Your task to perform on an android device: turn vacation reply on in the gmail app Image 0: 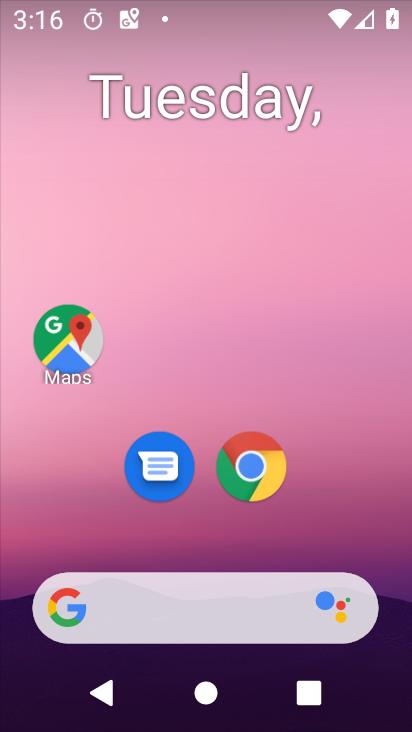
Step 0: drag from (373, 550) to (352, 149)
Your task to perform on an android device: turn vacation reply on in the gmail app Image 1: 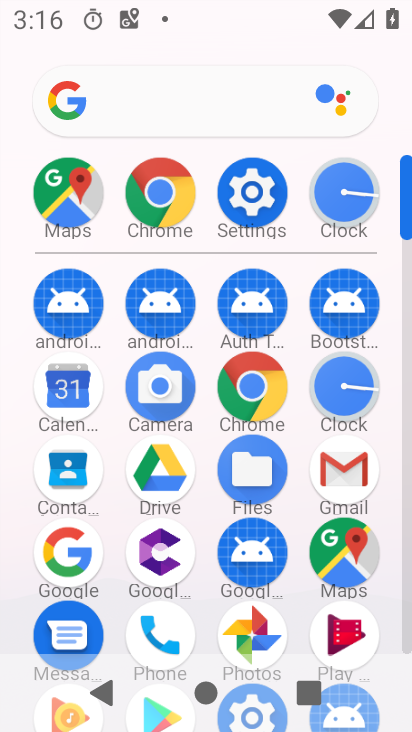
Step 1: click (354, 467)
Your task to perform on an android device: turn vacation reply on in the gmail app Image 2: 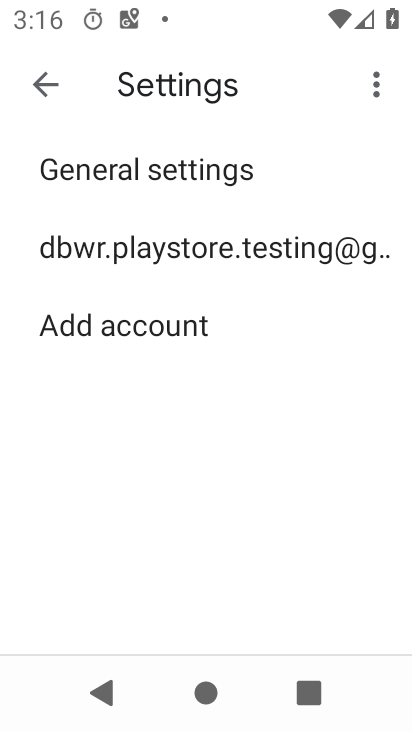
Step 2: click (160, 258)
Your task to perform on an android device: turn vacation reply on in the gmail app Image 3: 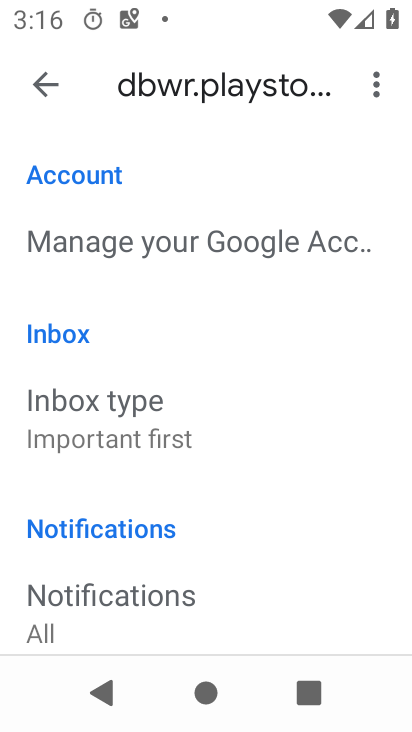
Step 3: drag from (309, 521) to (315, 412)
Your task to perform on an android device: turn vacation reply on in the gmail app Image 4: 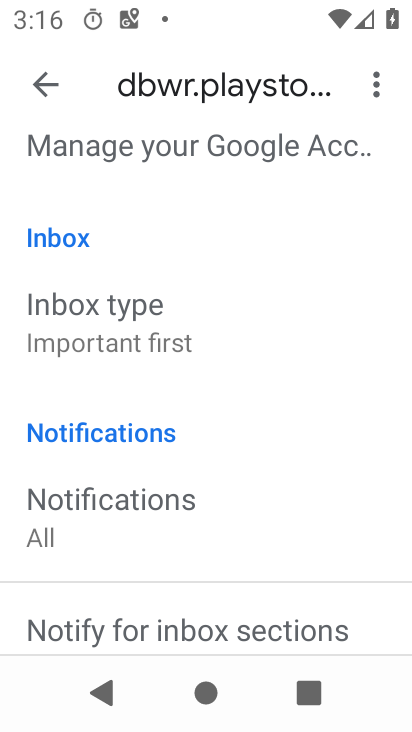
Step 4: drag from (301, 550) to (299, 354)
Your task to perform on an android device: turn vacation reply on in the gmail app Image 5: 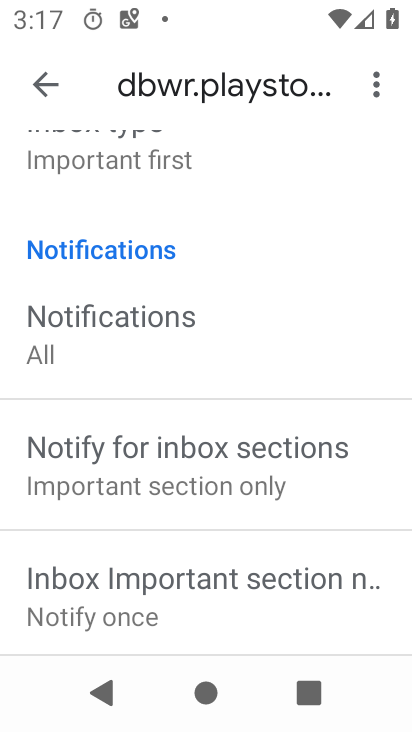
Step 5: drag from (322, 551) to (319, 395)
Your task to perform on an android device: turn vacation reply on in the gmail app Image 6: 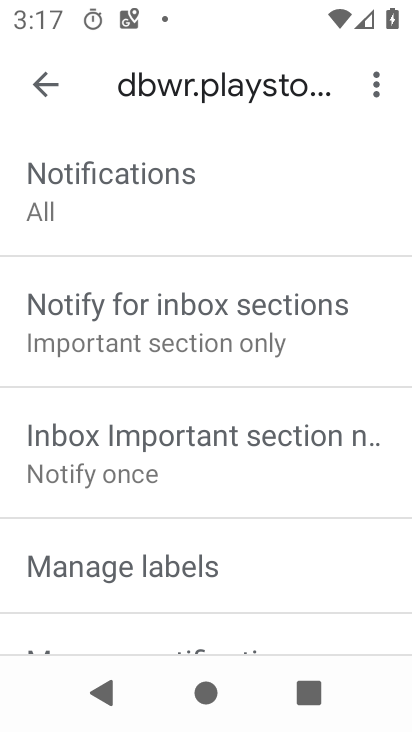
Step 6: drag from (323, 552) to (326, 359)
Your task to perform on an android device: turn vacation reply on in the gmail app Image 7: 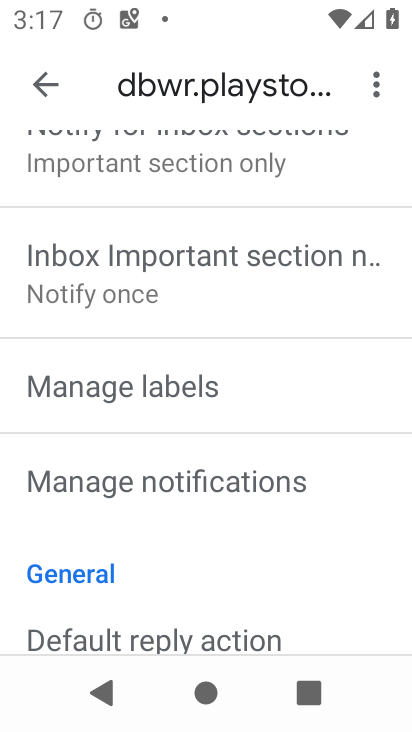
Step 7: drag from (321, 574) to (325, 376)
Your task to perform on an android device: turn vacation reply on in the gmail app Image 8: 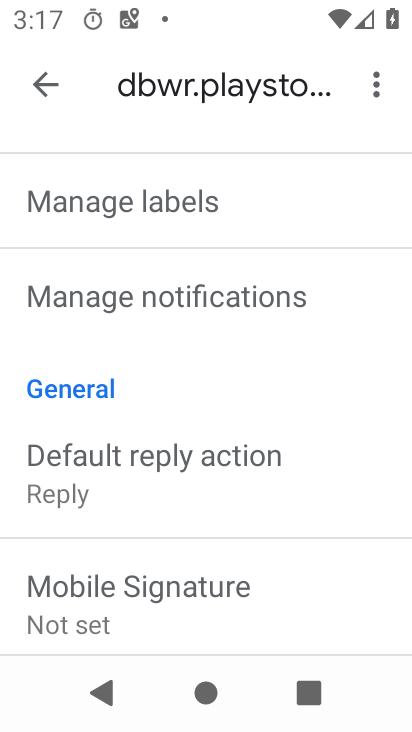
Step 8: drag from (316, 556) to (327, 385)
Your task to perform on an android device: turn vacation reply on in the gmail app Image 9: 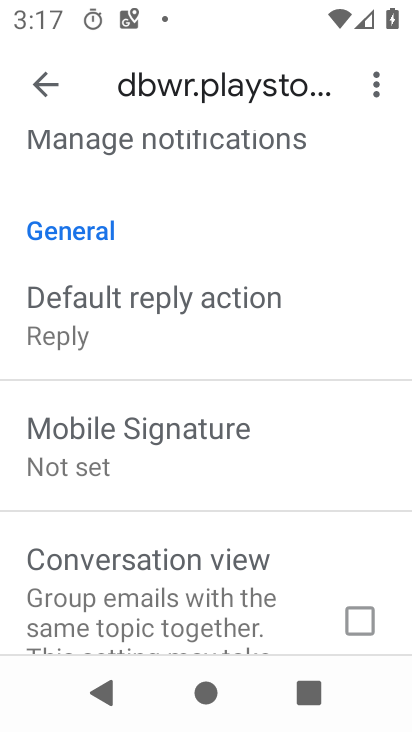
Step 9: drag from (304, 478) to (318, 347)
Your task to perform on an android device: turn vacation reply on in the gmail app Image 10: 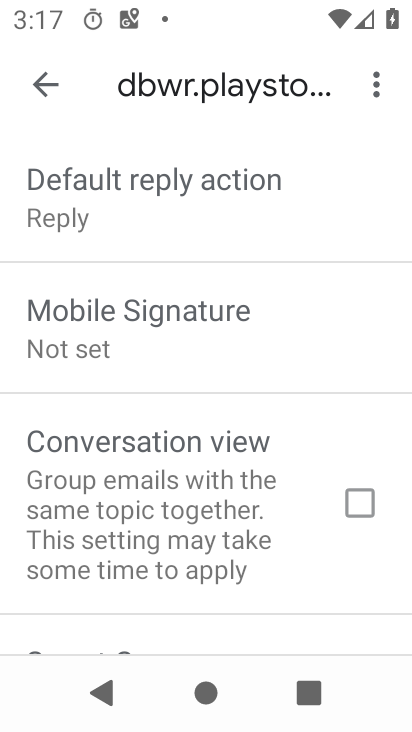
Step 10: drag from (311, 528) to (352, 341)
Your task to perform on an android device: turn vacation reply on in the gmail app Image 11: 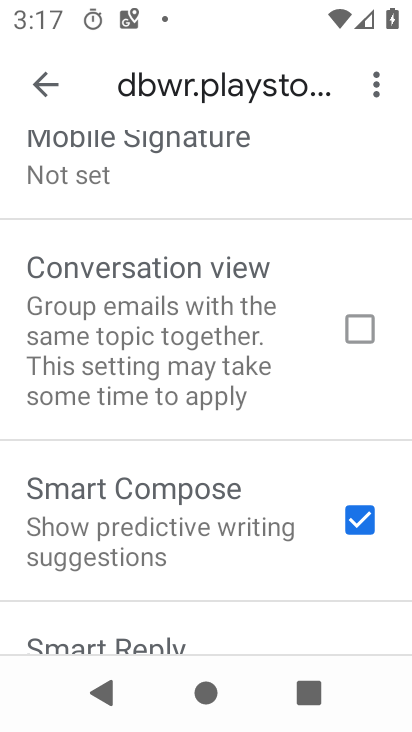
Step 11: drag from (312, 556) to (296, 407)
Your task to perform on an android device: turn vacation reply on in the gmail app Image 12: 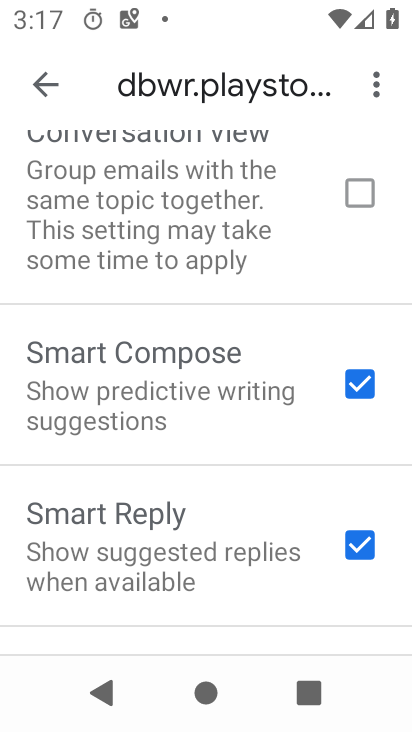
Step 12: drag from (294, 588) to (262, 385)
Your task to perform on an android device: turn vacation reply on in the gmail app Image 13: 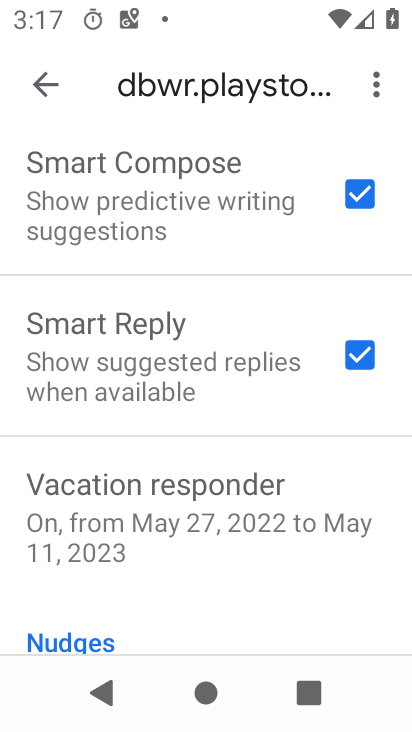
Step 13: click (218, 480)
Your task to perform on an android device: turn vacation reply on in the gmail app Image 14: 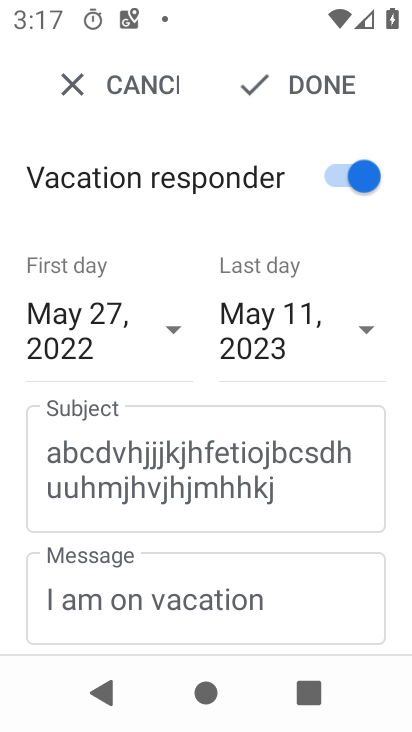
Step 14: task complete